Your task to perform on an android device: Add lenovo thinkpad to the cart on ebay.com Image 0: 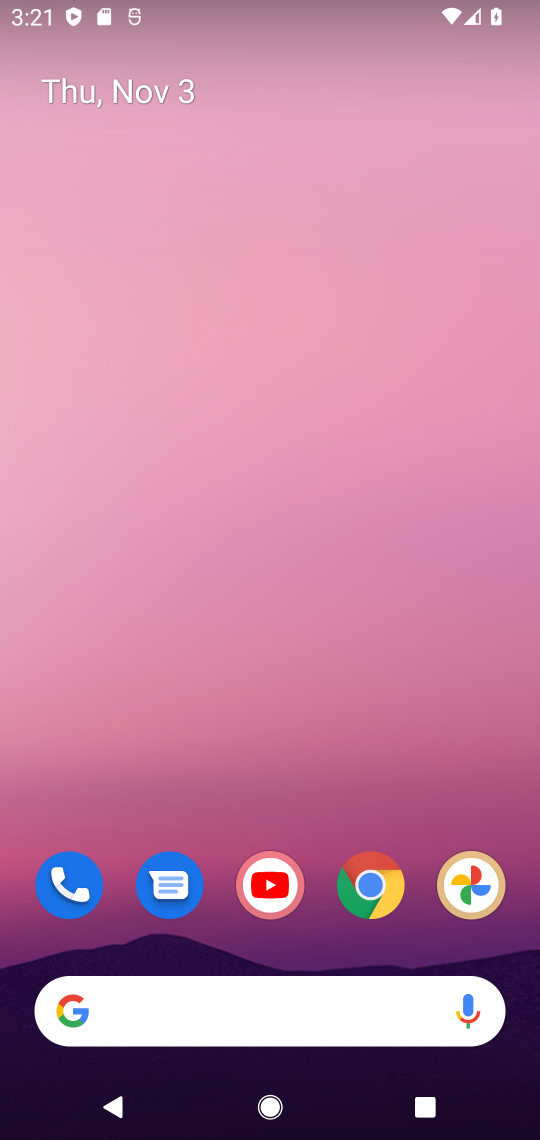
Step 0: click (374, 896)
Your task to perform on an android device: Add lenovo thinkpad to the cart on ebay.com Image 1: 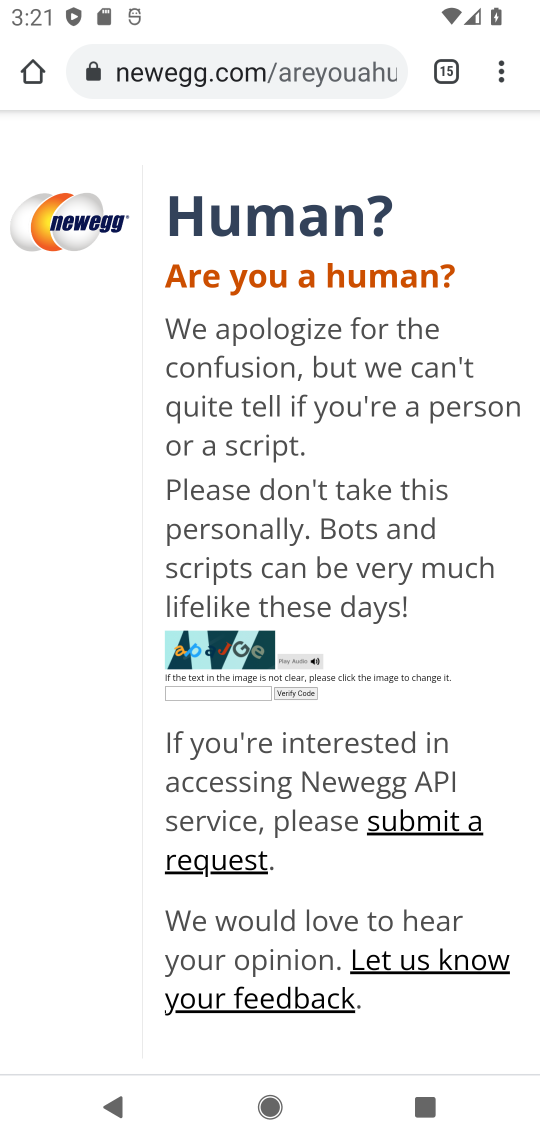
Step 1: click (503, 77)
Your task to perform on an android device: Add lenovo thinkpad to the cart on ebay.com Image 2: 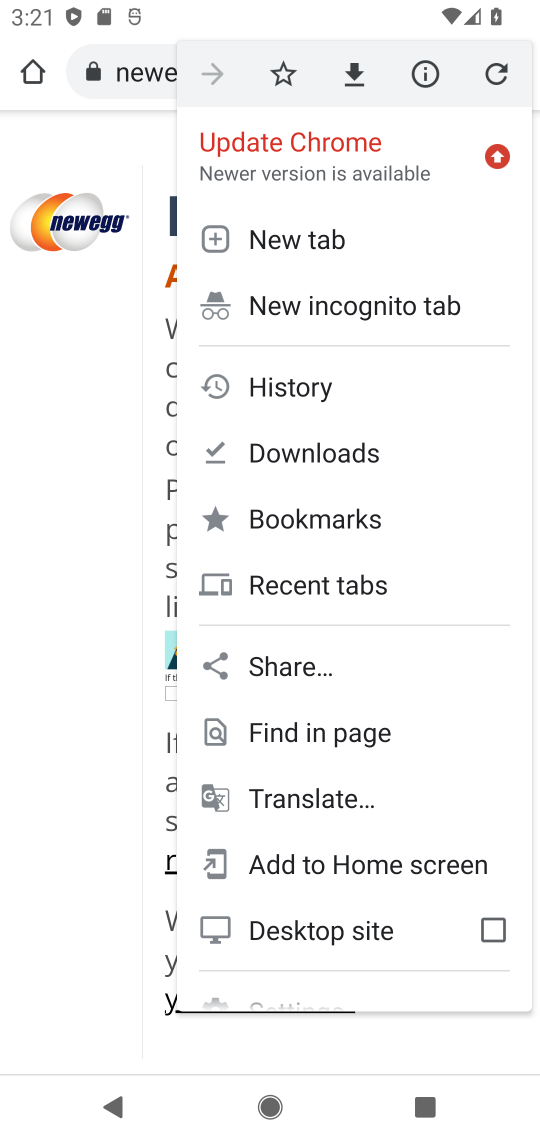
Step 2: click (285, 245)
Your task to perform on an android device: Add lenovo thinkpad to the cart on ebay.com Image 3: 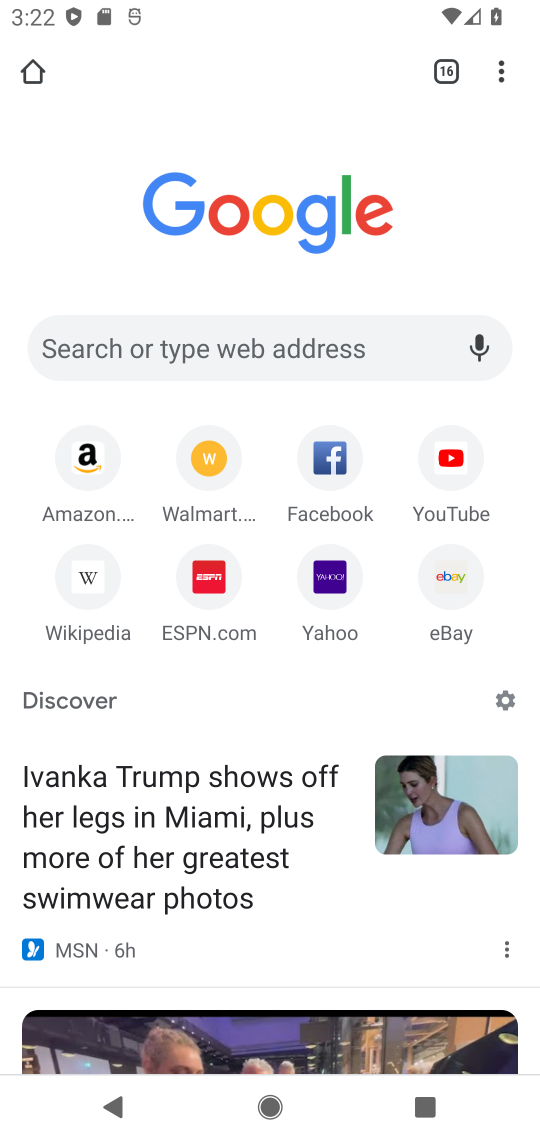
Step 3: click (308, 337)
Your task to perform on an android device: Add lenovo thinkpad to the cart on ebay.com Image 4: 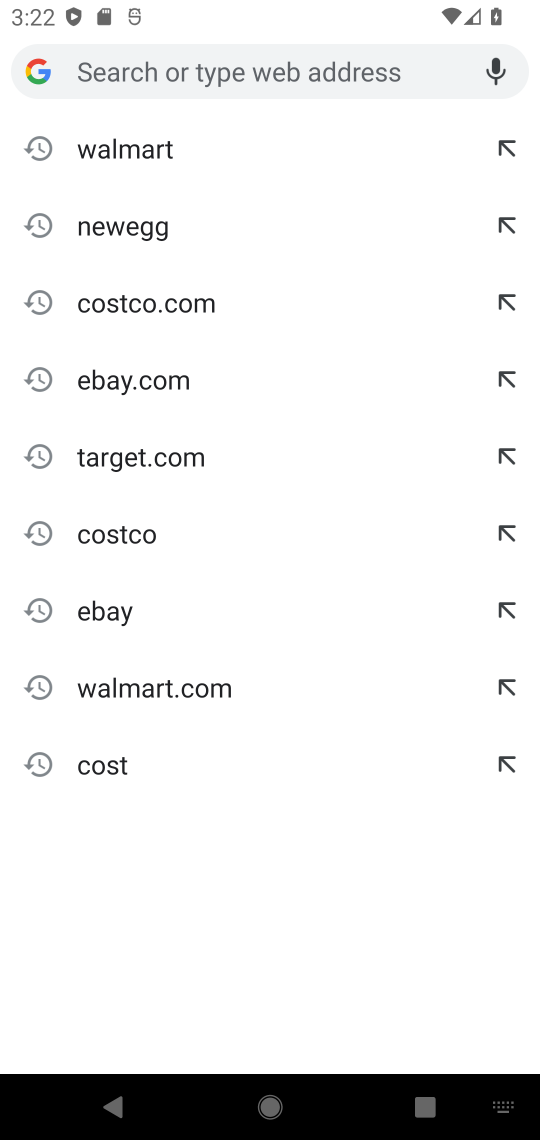
Step 4: type " ebay.com"
Your task to perform on an android device: Add lenovo thinkpad to the cart on ebay.com Image 5: 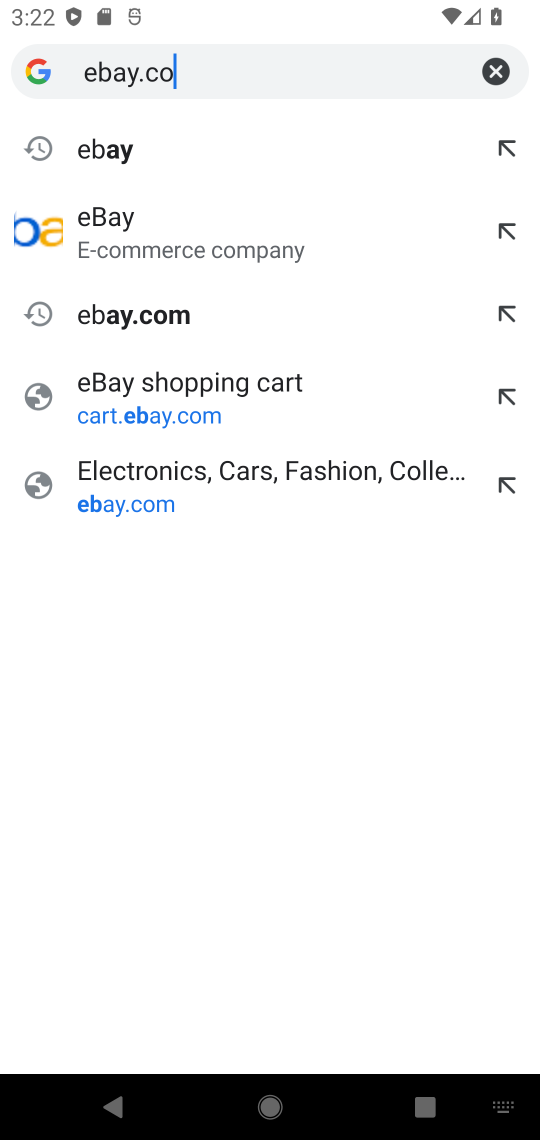
Step 5: type ""
Your task to perform on an android device: Add lenovo thinkpad to the cart on ebay.com Image 6: 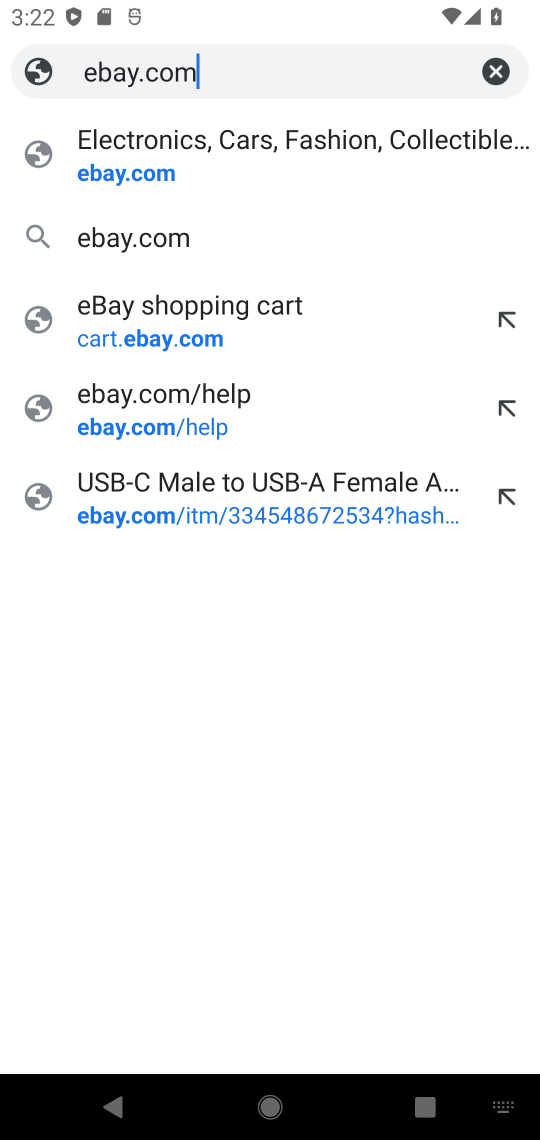
Step 6: click (126, 247)
Your task to perform on an android device: Add lenovo thinkpad to the cart on ebay.com Image 7: 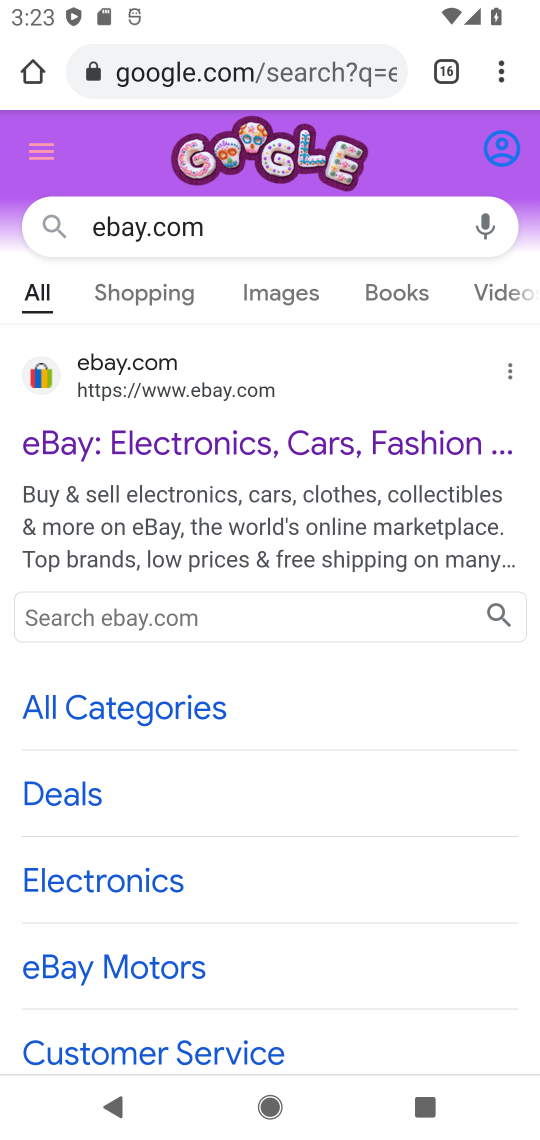
Step 7: click (233, 441)
Your task to perform on an android device: Add lenovo thinkpad to the cart on ebay.com Image 8: 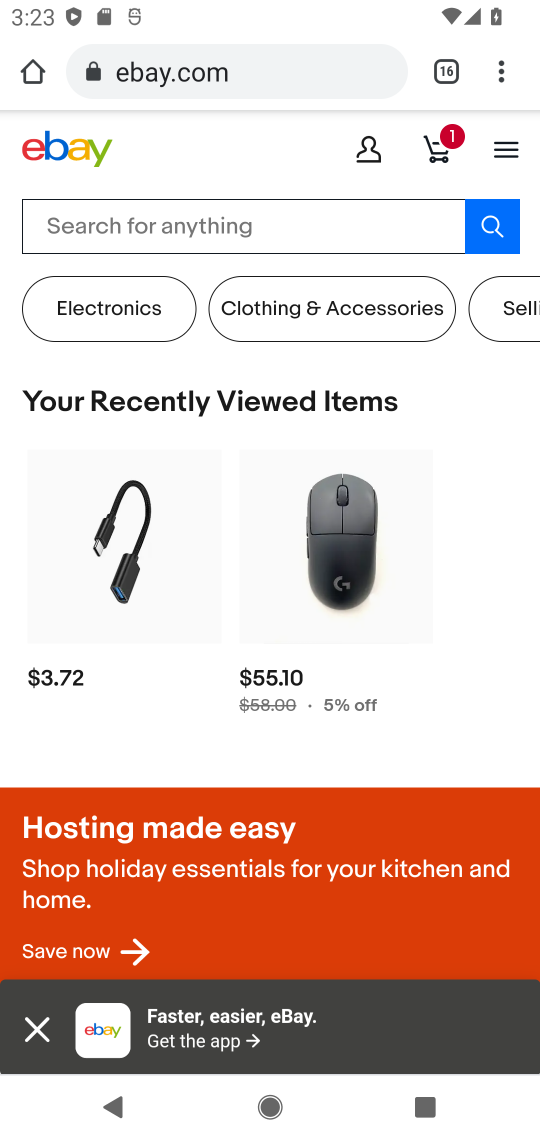
Step 8: click (236, 221)
Your task to perform on an android device: Add lenovo thinkpad to the cart on ebay.com Image 9: 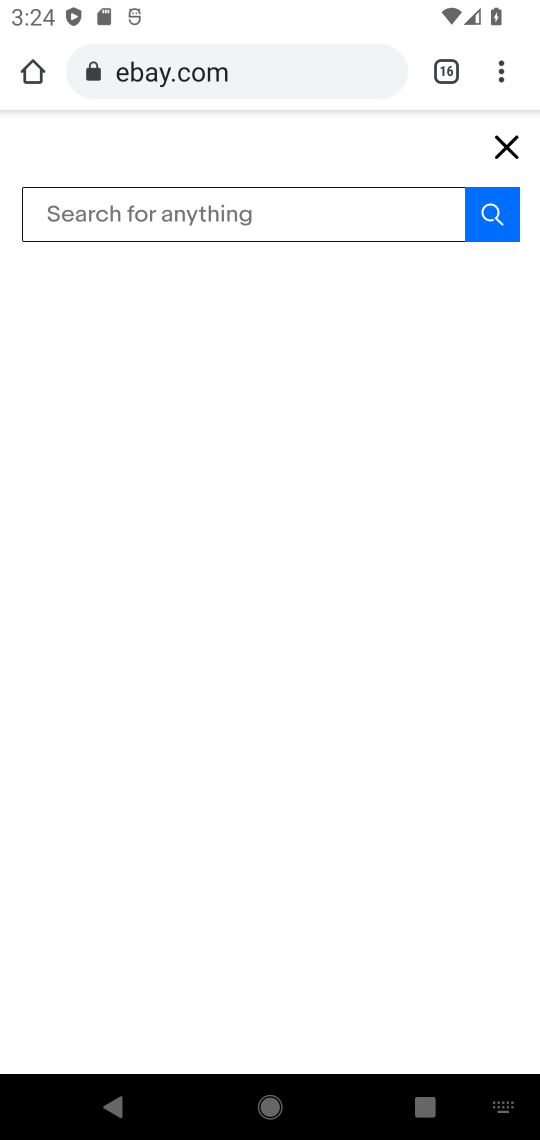
Step 9: type "lenovo thinkpad"
Your task to perform on an android device: Add lenovo thinkpad to the cart on ebay.com Image 10: 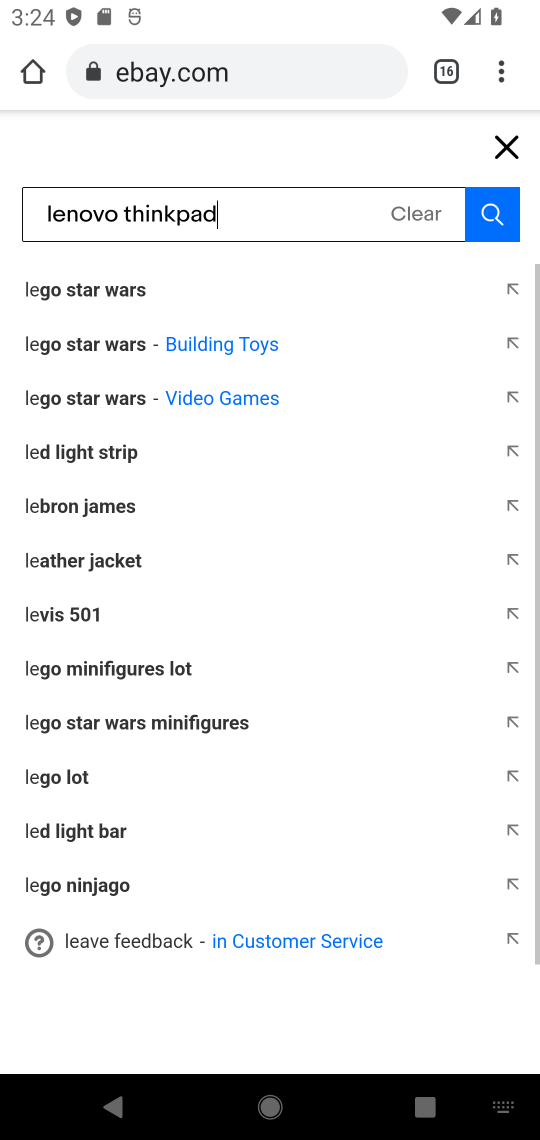
Step 10: type ""
Your task to perform on an android device: Add lenovo thinkpad to the cart on ebay.com Image 11: 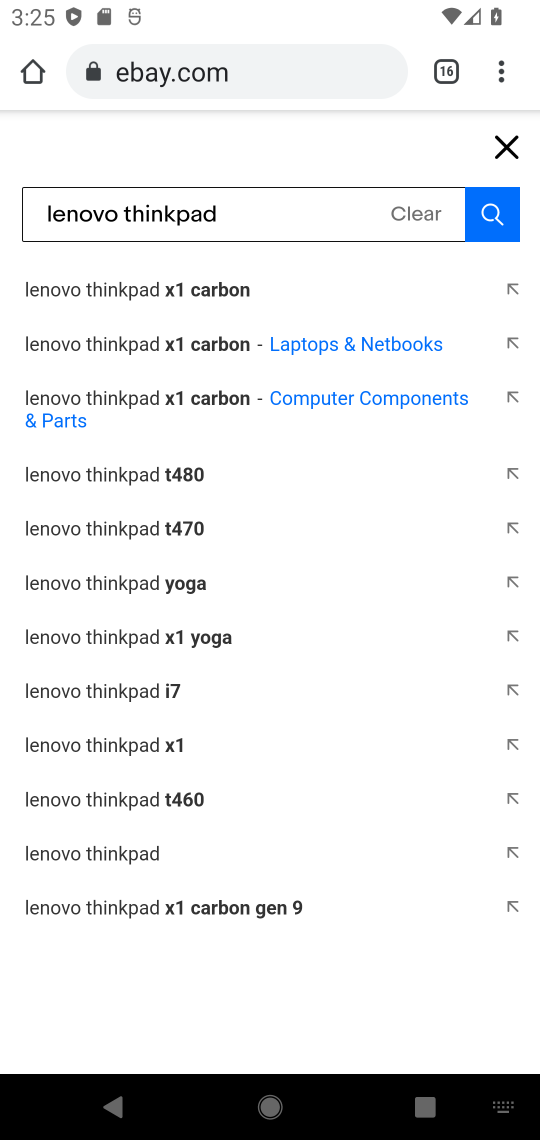
Step 11: click (85, 856)
Your task to perform on an android device: Add lenovo thinkpad to the cart on ebay.com Image 12: 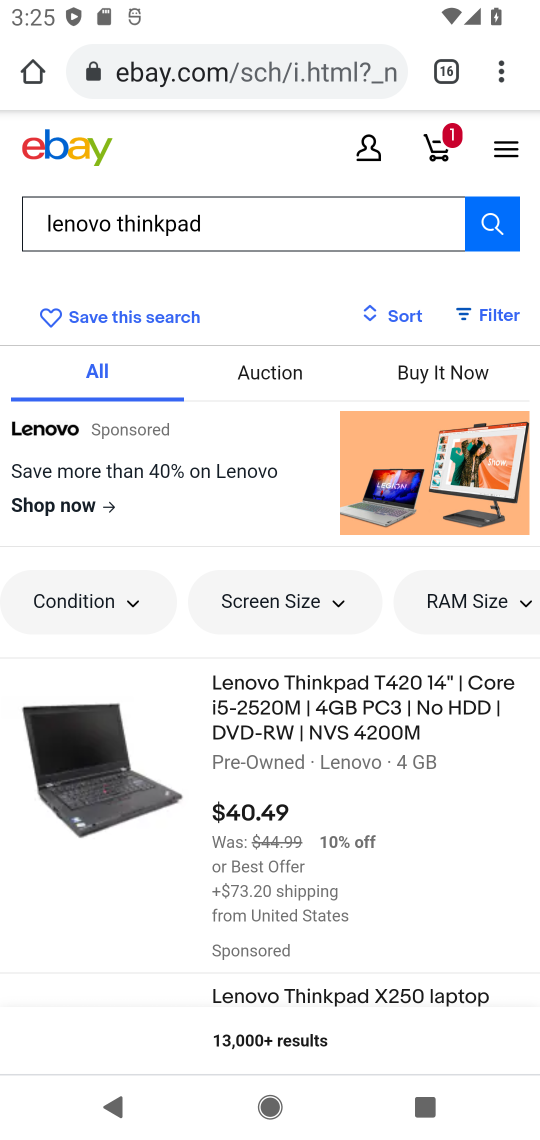
Step 12: click (290, 709)
Your task to perform on an android device: Add lenovo thinkpad to the cart on ebay.com Image 13: 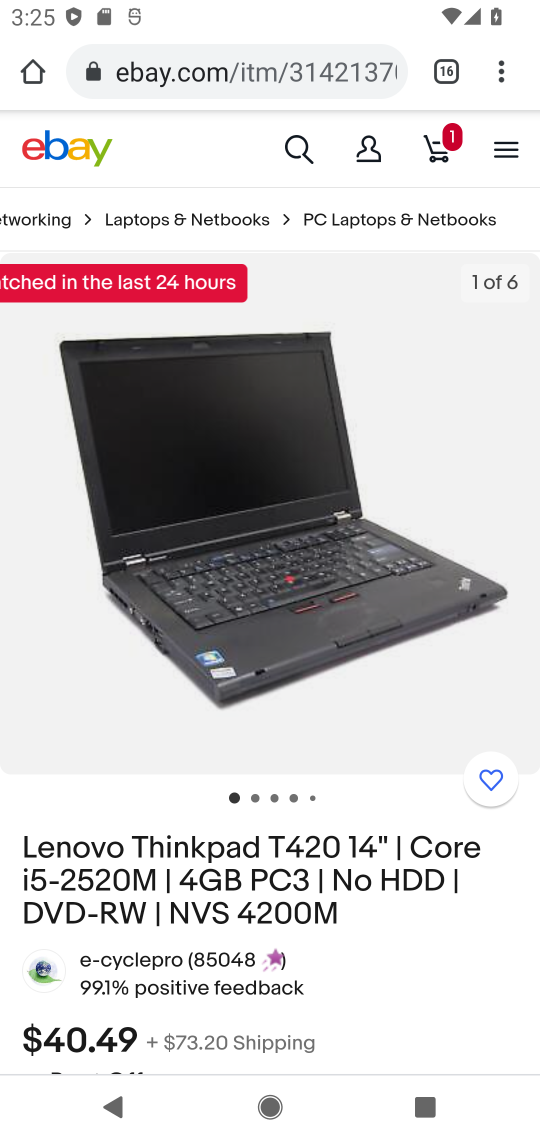
Step 13: drag from (311, 975) to (256, 558)
Your task to perform on an android device: Add lenovo thinkpad to the cart on ebay.com Image 14: 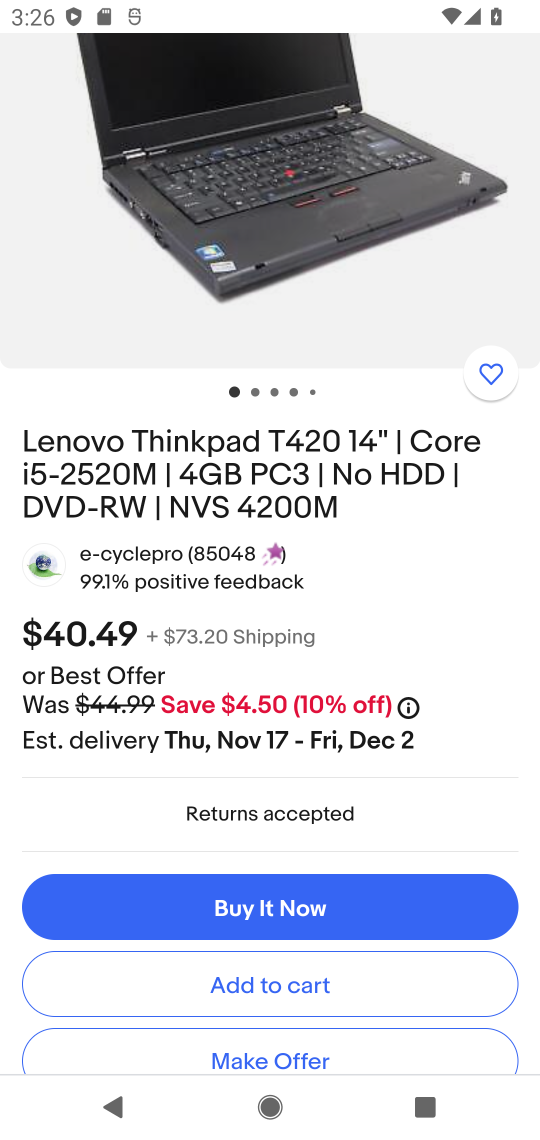
Step 14: click (265, 998)
Your task to perform on an android device: Add lenovo thinkpad to the cart on ebay.com Image 15: 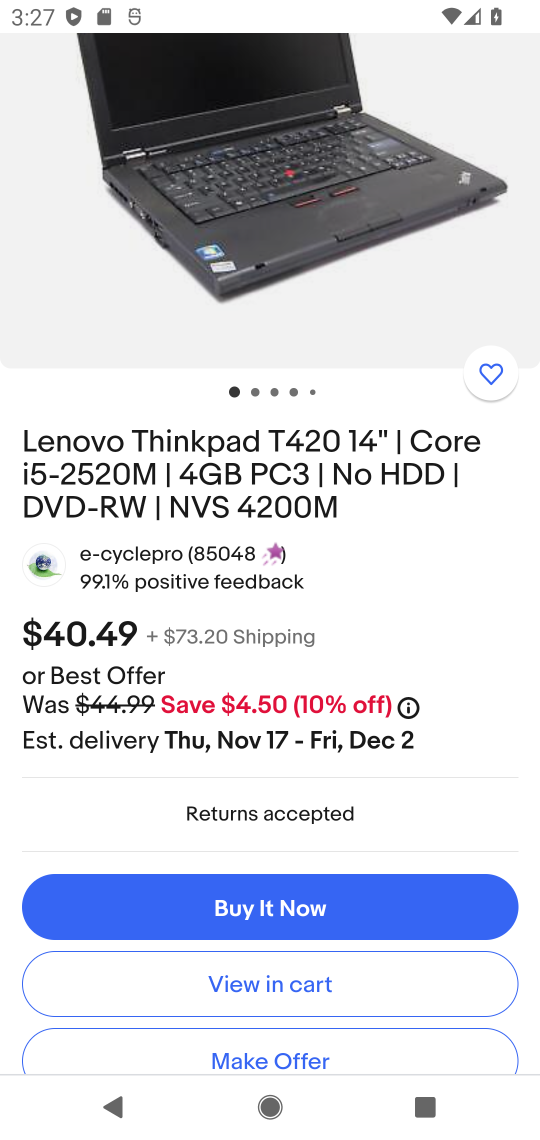
Step 15: task complete